Your task to perform on an android device: open a bookmark in the chrome app Image 0: 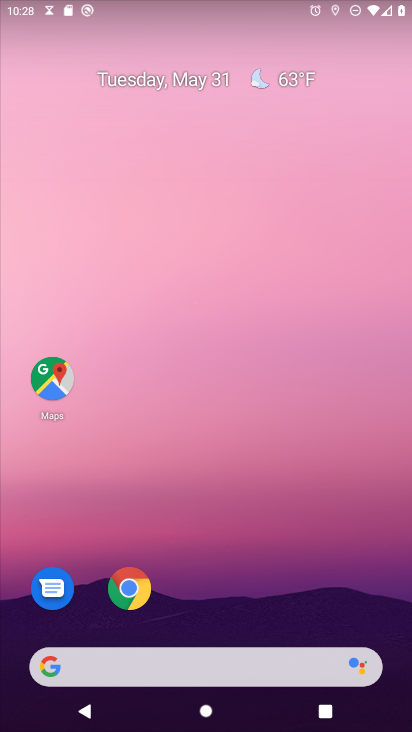
Step 0: click (127, 589)
Your task to perform on an android device: open a bookmark in the chrome app Image 1: 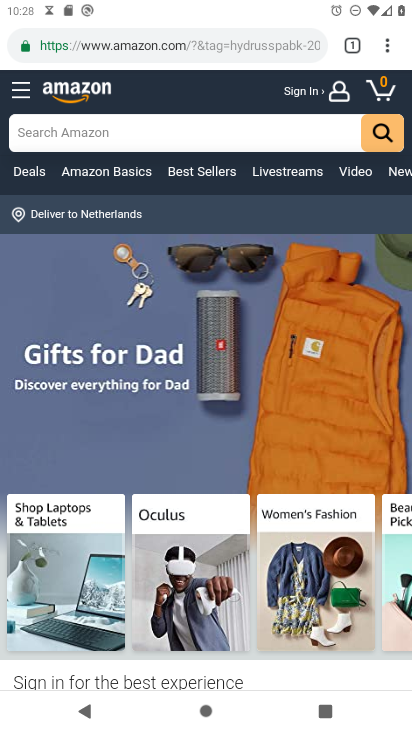
Step 1: click (386, 44)
Your task to perform on an android device: open a bookmark in the chrome app Image 2: 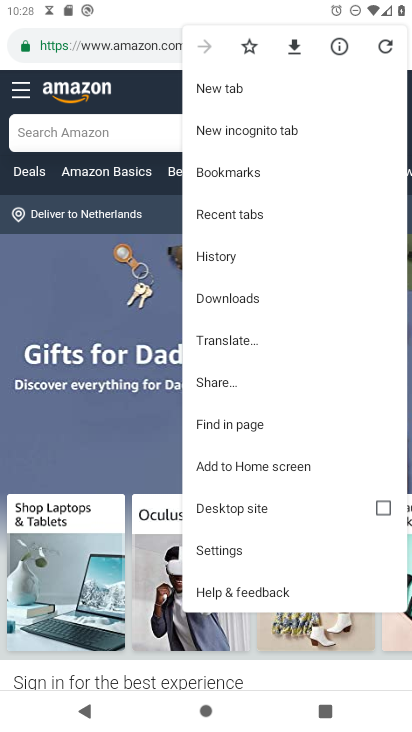
Step 2: click (245, 170)
Your task to perform on an android device: open a bookmark in the chrome app Image 3: 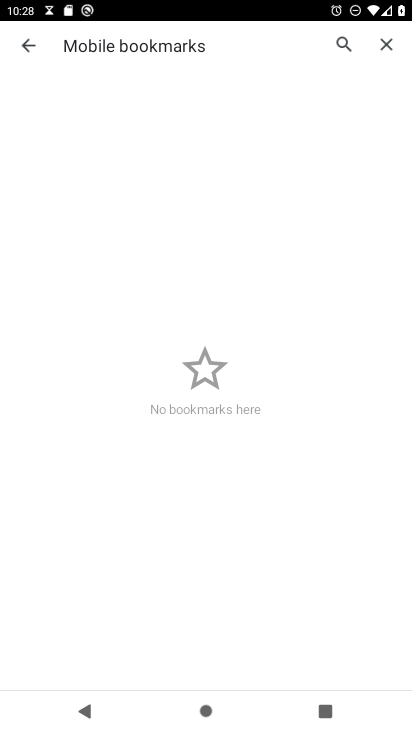
Step 3: task complete